Your task to perform on an android device: turn on javascript in the chrome app Image 0: 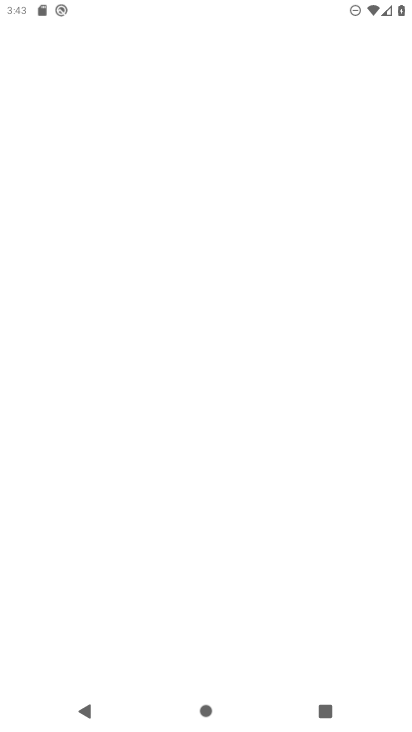
Step 0: drag from (324, 625) to (305, 527)
Your task to perform on an android device: turn on javascript in the chrome app Image 1: 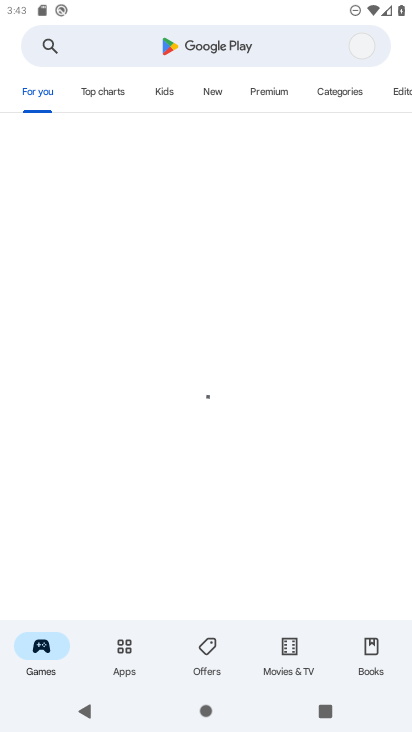
Step 1: press home button
Your task to perform on an android device: turn on javascript in the chrome app Image 2: 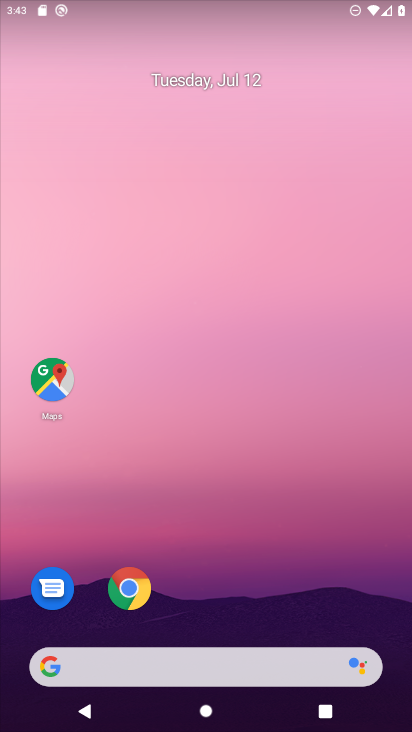
Step 2: drag from (391, 619) to (301, 124)
Your task to perform on an android device: turn on javascript in the chrome app Image 3: 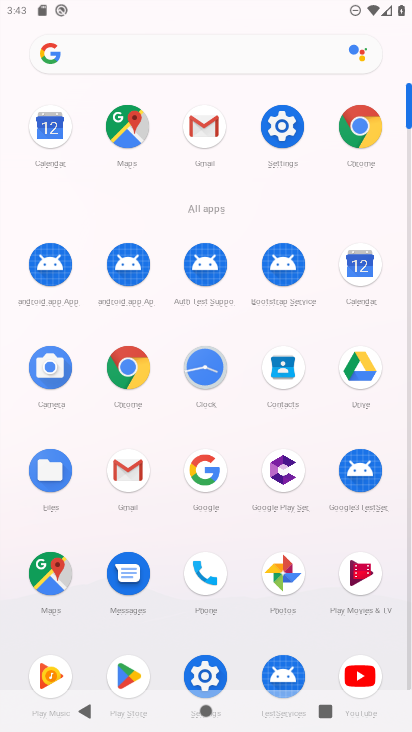
Step 3: click (370, 126)
Your task to perform on an android device: turn on javascript in the chrome app Image 4: 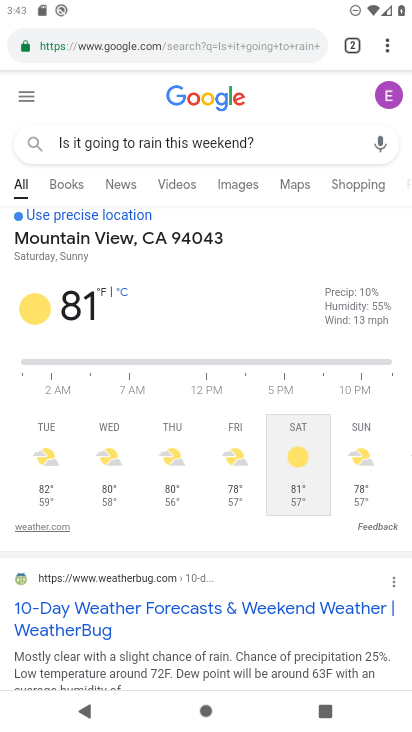
Step 4: click (378, 50)
Your task to perform on an android device: turn on javascript in the chrome app Image 5: 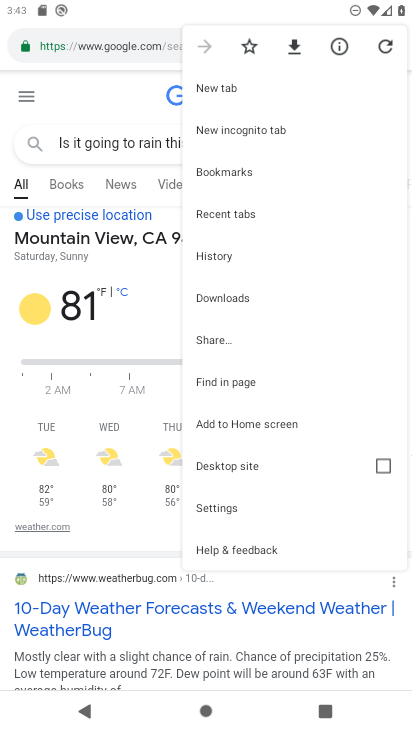
Step 5: click (249, 505)
Your task to perform on an android device: turn on javascript in the chrome app Image 6: 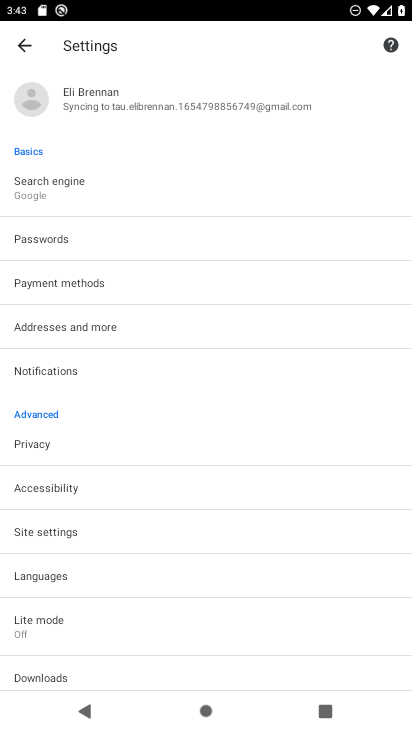
Step 6: click (202, 536)
Your task to perform on an android device: turn on javascript in the chrome app Image 7: 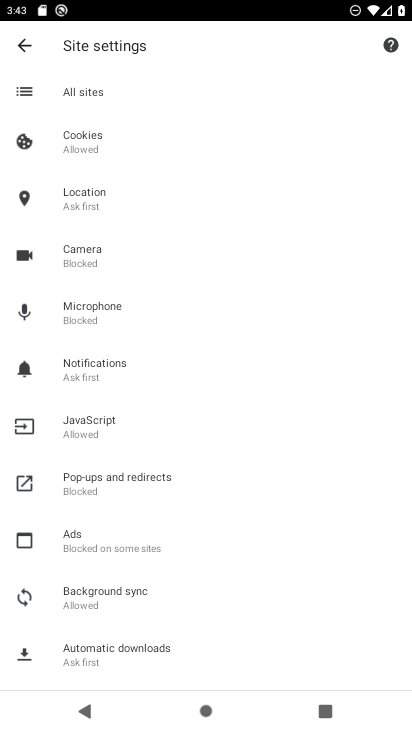
Step 7: click (174, 424)
Your task to perform on an android device: turn on javascript in the chrome app Image 8: 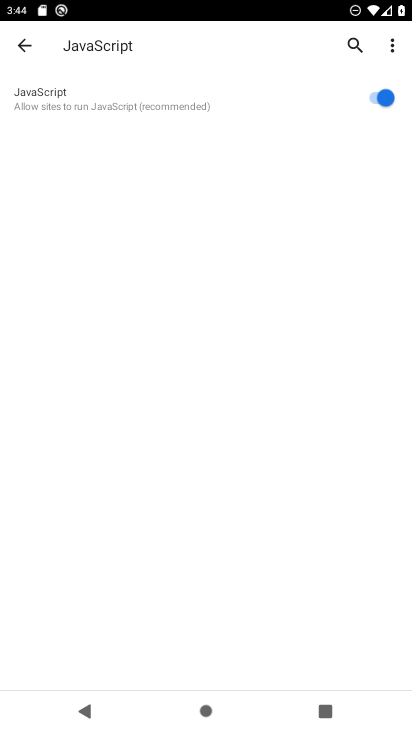
Step 8: task complete